Your task to perform on an android device: Search for pizza restaurants on Maps Image 0: 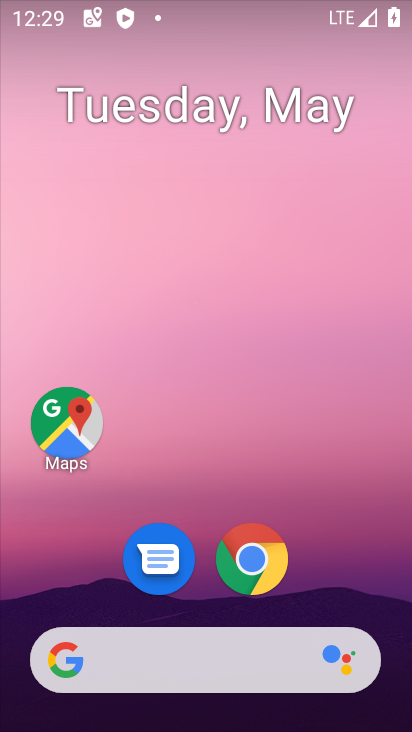
Step 0: click (67, 411)
Your task to perform on an android device: Search for pizza restaurants on Maps Image 1: 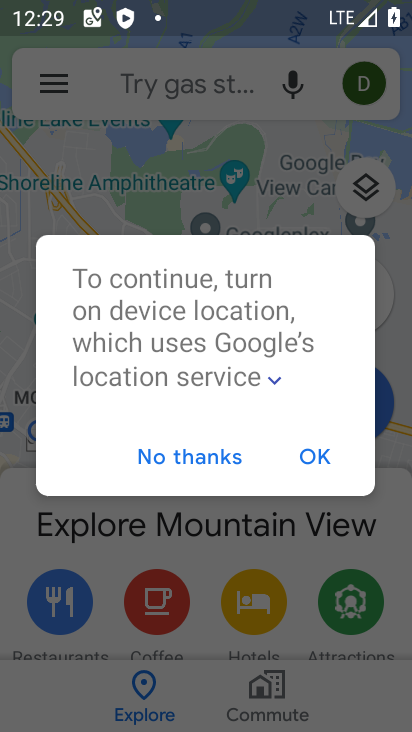
Step 1: click (302, 457)
Your task to perform on an android device: Search for pizza restaurants on Maps Image 2: 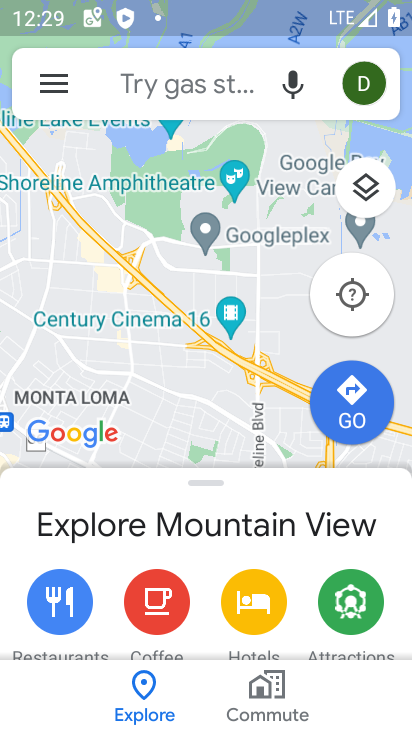
Step 2: click (169, 91)
Your task to perform on an android device: Search for pizza restaurants on Maps Image 3: 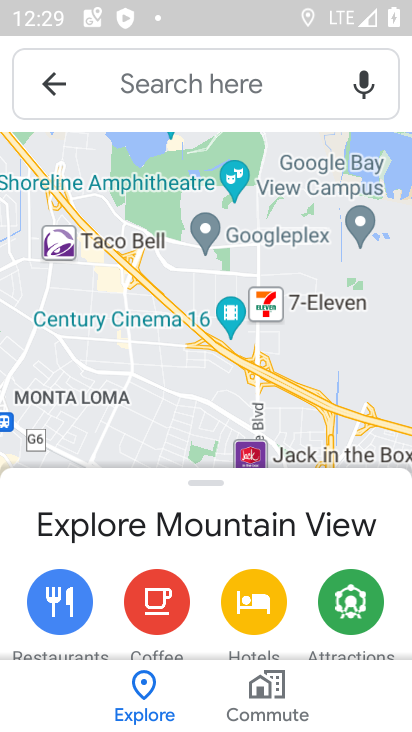
Step 3: click (169, 91)
Your task to perform on an android device: Search for pizza restaurants on Maps Image 4: 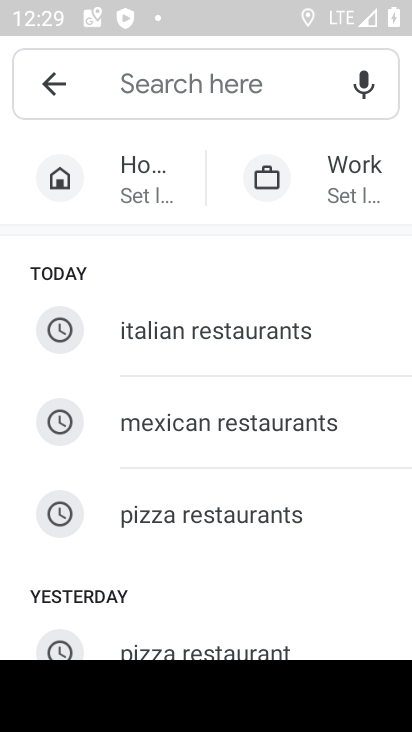
Step 4: click (239, 490)
Your task to perform on an android device: Search for pizza restaurants on Maps Image 5: 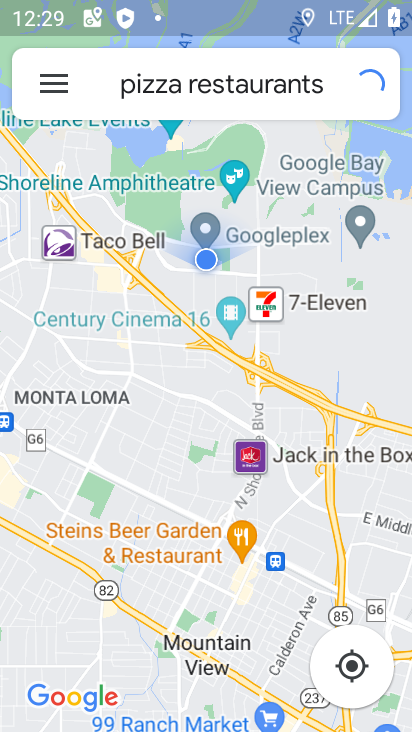
Step 5: task complete